Your task to perform on an android device: turn on airplane mode Image 0: 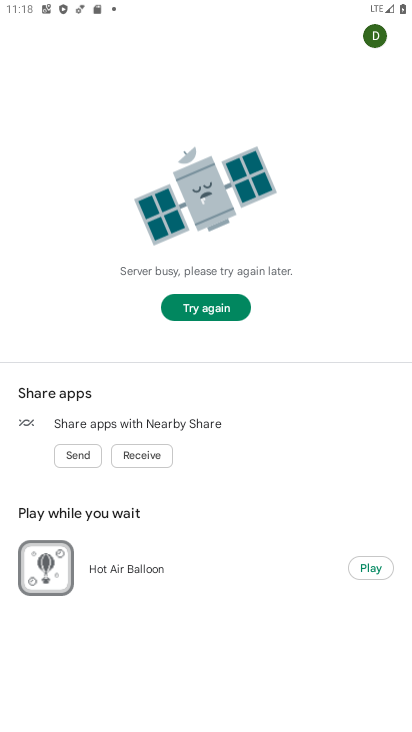
Step 0: press home button
Your task to perform on an android device: turn on airplane mode Image 1: 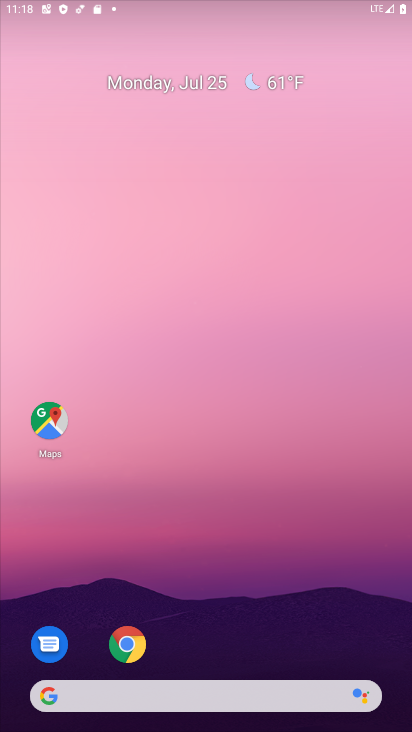
Step 1: drag from (204, 575) to (262, 55)
Your task to perform on an android device: turn on airplane mode Image 2: 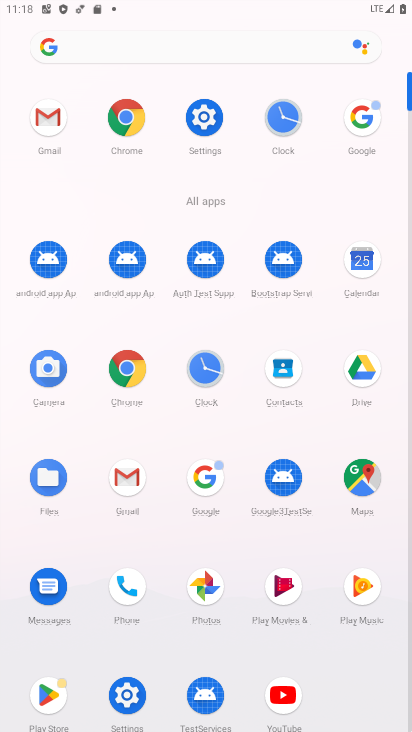
Step 2: click (211, 108)
Your task to perform on an android device: turn on airplane mode Image 3: 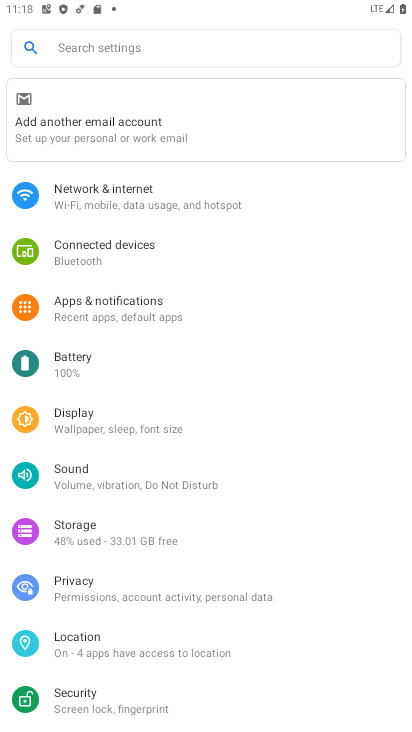
Step 3: click (150, 176)
Your task to perform on an android device: turn on airplane mode Image 4: 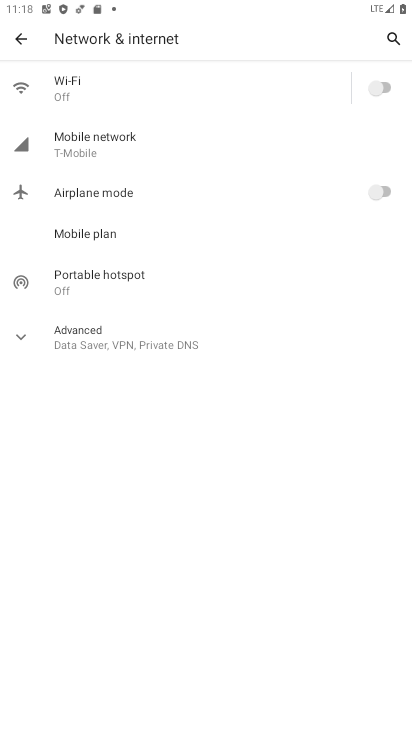
Step 4: click (373, 184)
Your task to perform on an android device: turn on airplane mode Image 5: 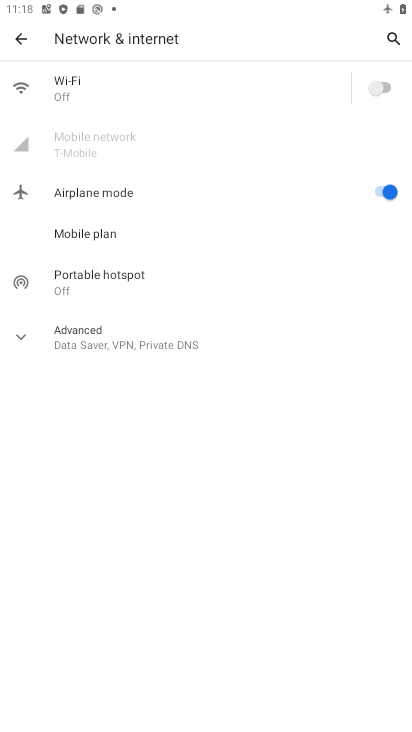
Step 5: task complete